Your task to perform on an android device: Show me popular videos on Youtube Image 0: 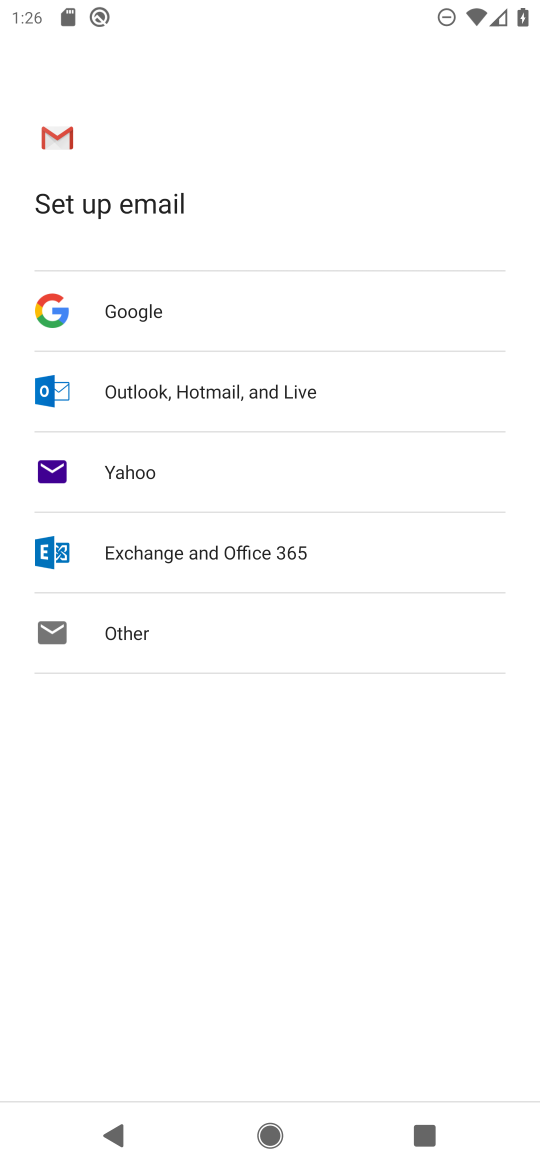
Step 0: press home button
Your task to perform on an android device: Show me popular videos on Youtube Image 1: 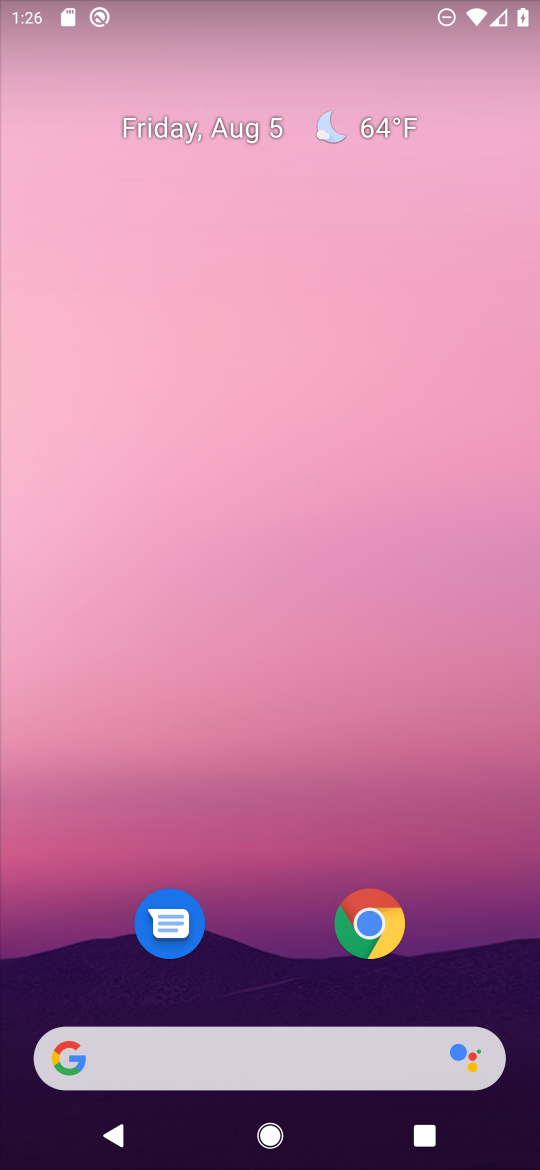
Step 1: drag from (321, 1001) to (218, 24)
Your task to perform on an android device: Show me popular videos on Youtube Image 2: 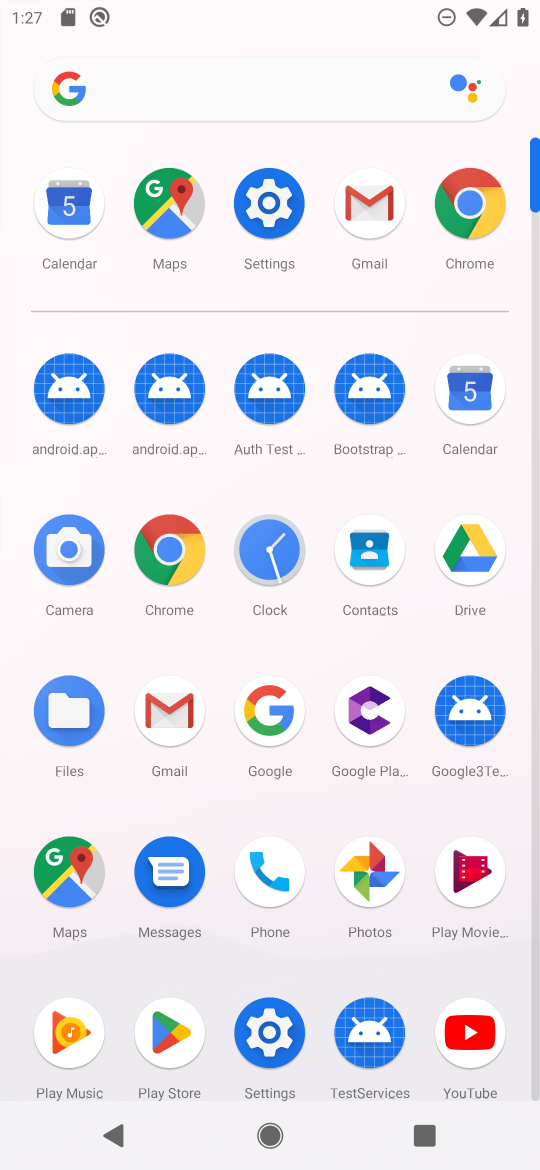
Step 2: click (461, 1042)
Your task to perform on an android device: Show me popular videos on Youtube Image 3: 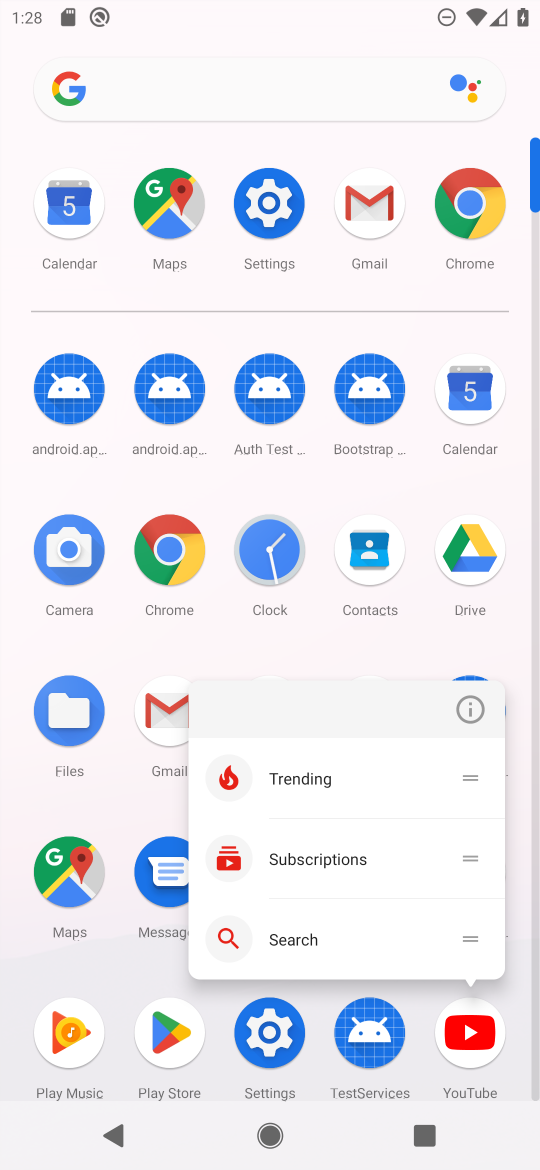
Step 3: click (473, 1022)
Your task to perform on an android device: Show me popular videos on Youtube Image 4: 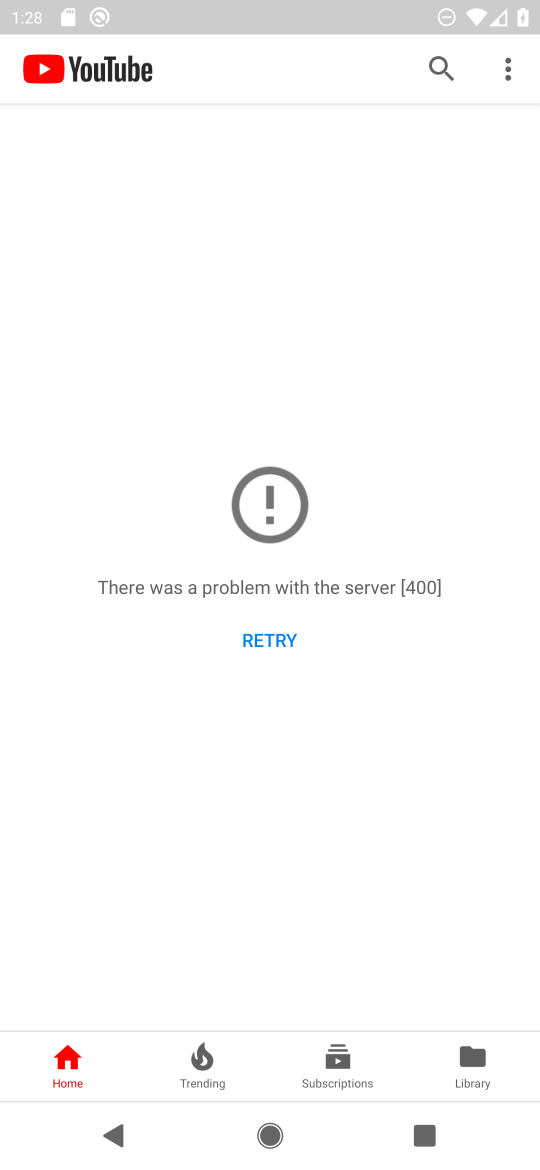
Step 4: task complete